Your task to perform on an android device: Find coffee shops on Maps Image 0: 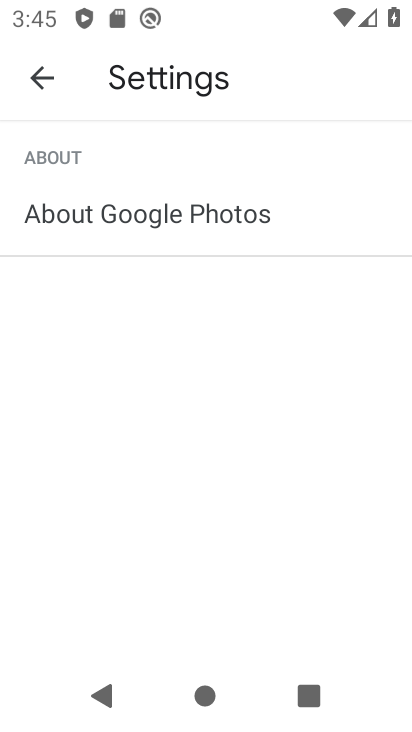
Step 0: press home button
Your task to perform on an android device: Find coffee shops on Maps Image 1: 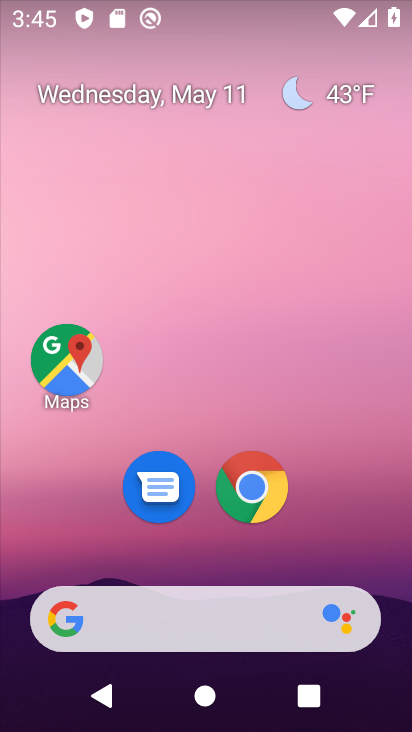
Step 1: click (334, 7)
Your task to perform on an android device: Find coffee shops on Maps Image 2: 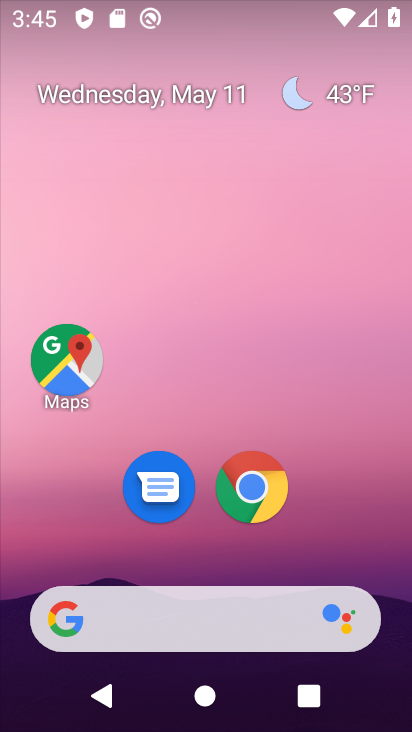
Step 2: click (291, 119)
Your task to perform on an android device: Find coffee shops on Maps Image 3: 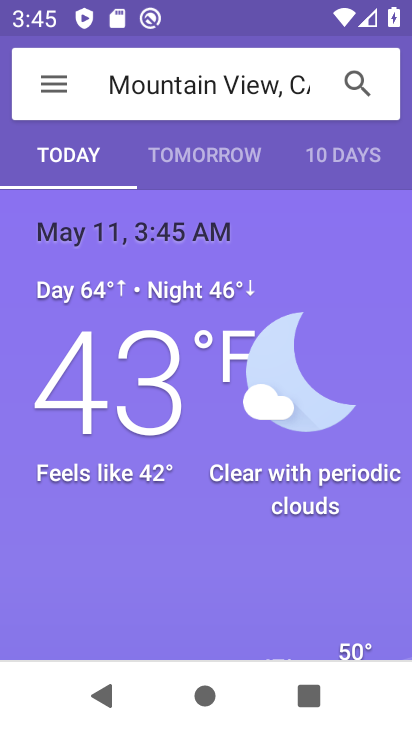
Step 3: press home button
Your task to perform on an android device: Find coffee shops on Maps Image 4: 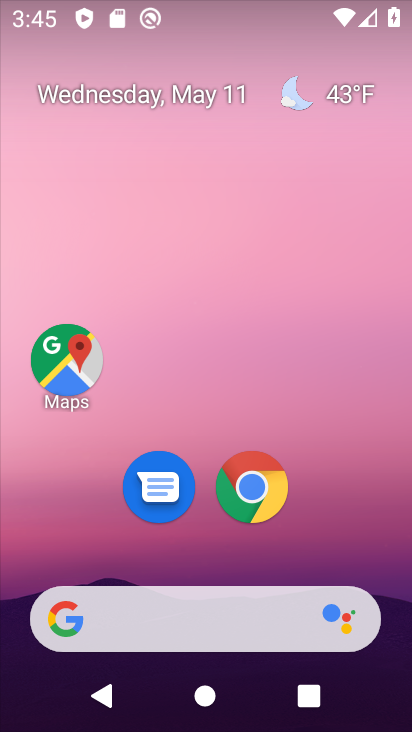
Step 4: click (62, 391)
Your task to perform on an android device: Find coffee shops on Maps Image 5: 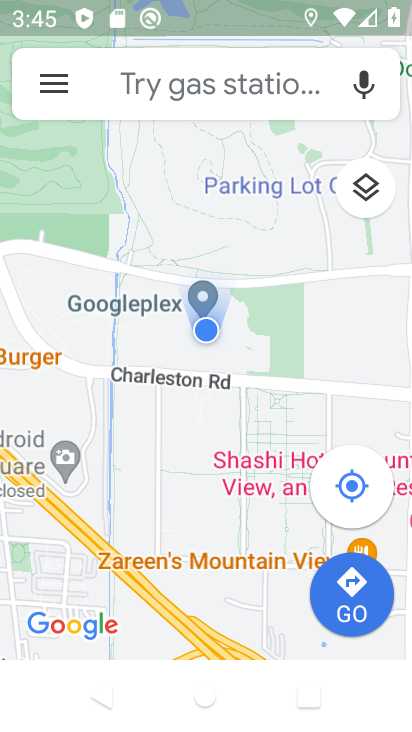
Step 5: click (164, 70)
Your task to perform on an android device: Find coffee shops on Maps Image 6: 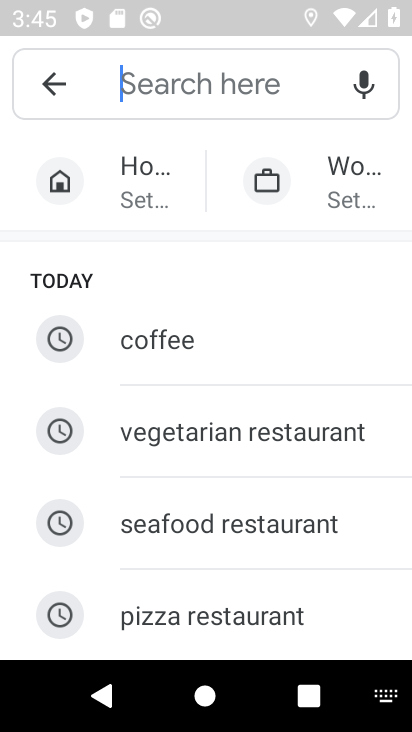
Step 6: type "coffee shops"
Your task to perform on an android device: Find coffee shops on Maps Image 7: 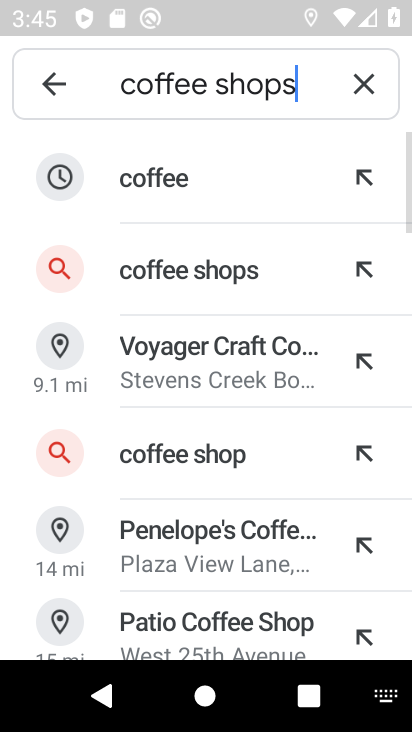
Step 7: click (225, 286)
Your task to perform on an android device: Find coffee shops on Maps Image 8: 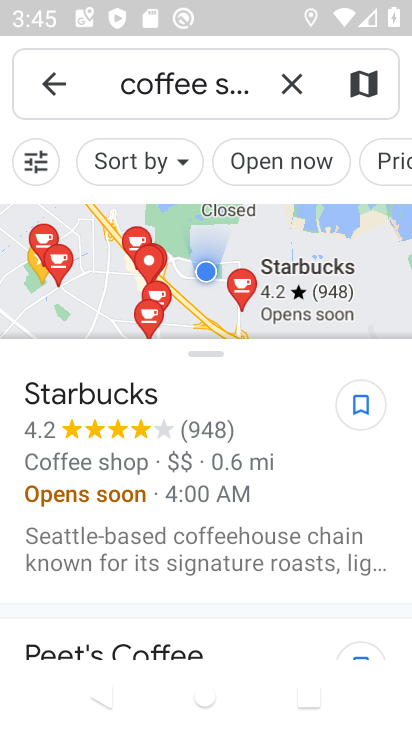
Step 8: task complete